Your task to perform on an android device: change the clock display to digital Image 0: 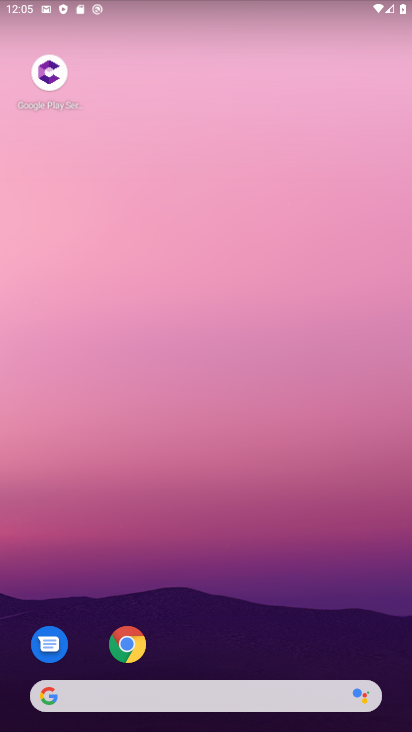
Step 0: drag from (261, 344) to (297, 182)
Your task to perform on an android device: change the clock display to digital Image 1: 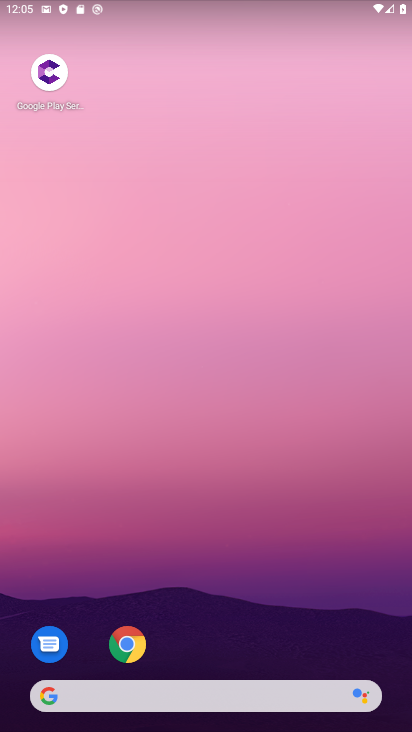
Step 1: drag from (251, 656) to (349, 84)
Your task to perform on an android device: change the clock display to digital Image 2: 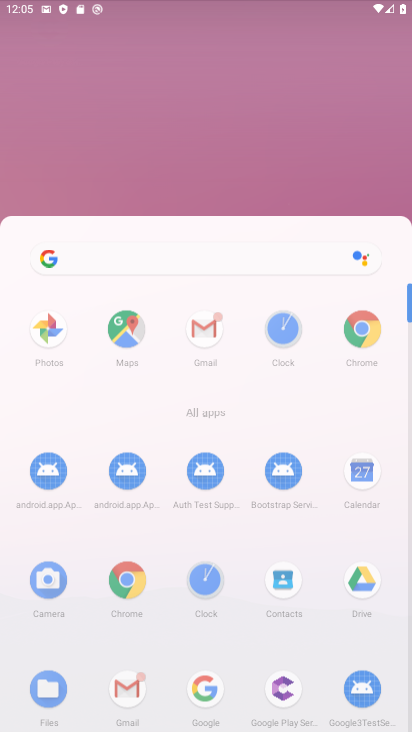
Step 2: drag from (304, 572) to (343, 181)
Your task to perform on an android device: change the clock display to digital Image 3: 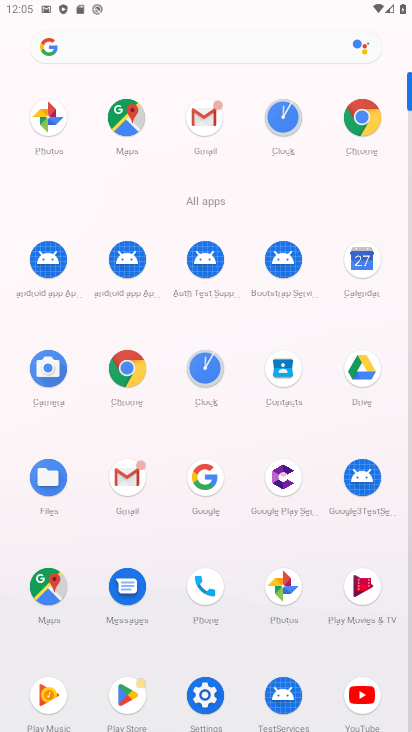
Step 3: click (215, 374)
Your task to perform on an android device: change the clock display to digital Image 4: 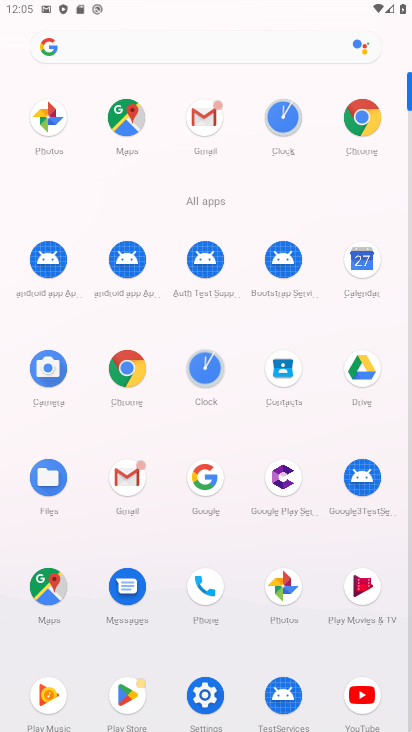
Step 4: click (215, 363)
Your task to perform on an android device: change the clock display to digital Image 5: 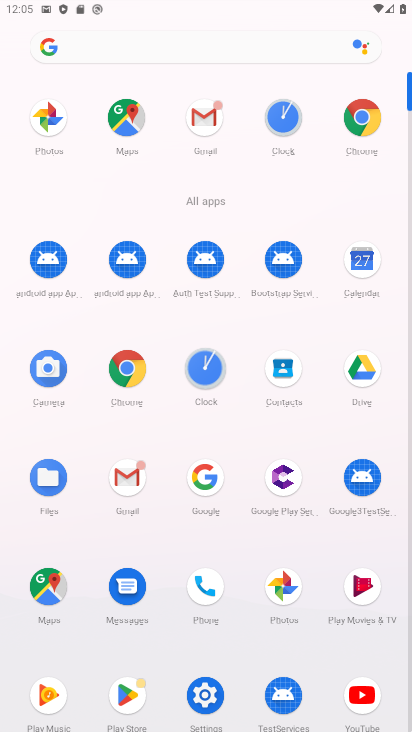
Step 5: click (213, 335)
Your task to perform on an android device: change the clock display to digital Image 6: 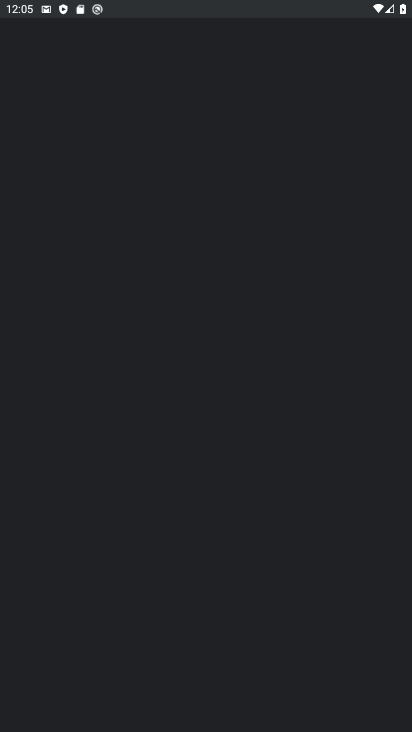
Step 6: click (207, 327)
Your task to perform on an android device: change the clock display to digital Image 7: 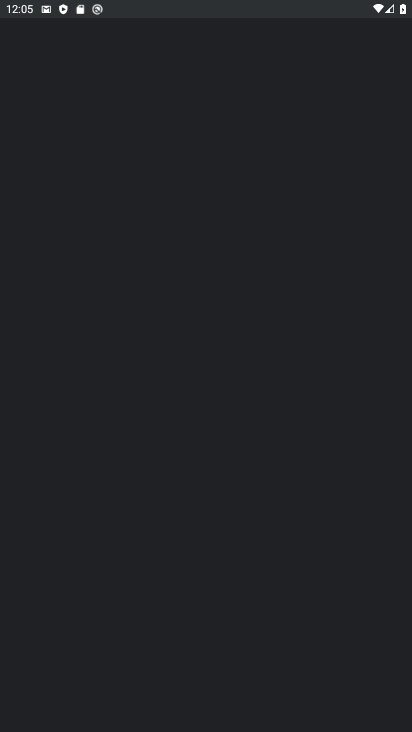
Step 7: click (210, 331)
Your task to perform on an android device: change the clock display to digital Image 8: 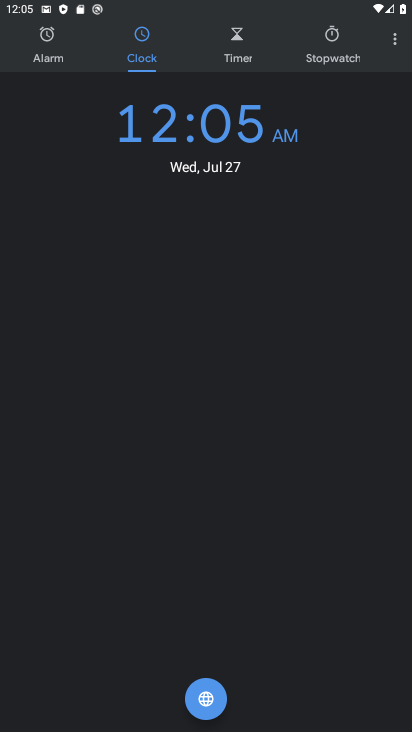
Step 8: drag from (398, 38) to (133, 364)
Your task to perform on an android device: change the clock display to digital Image 9: 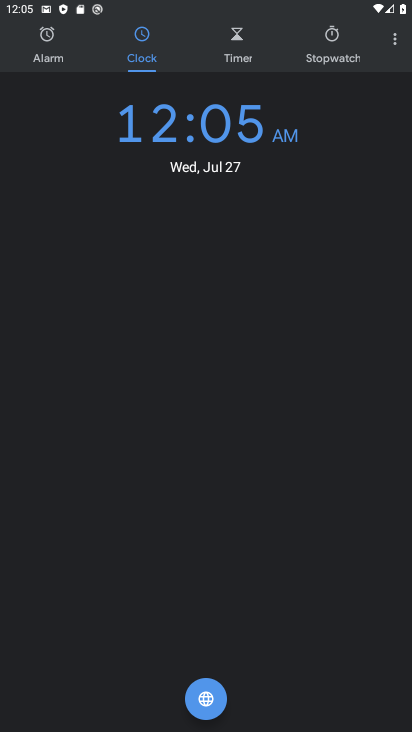
Step 9: click (318, 67)
Your task to perform on an android device: change the clock display to digital Image 10: 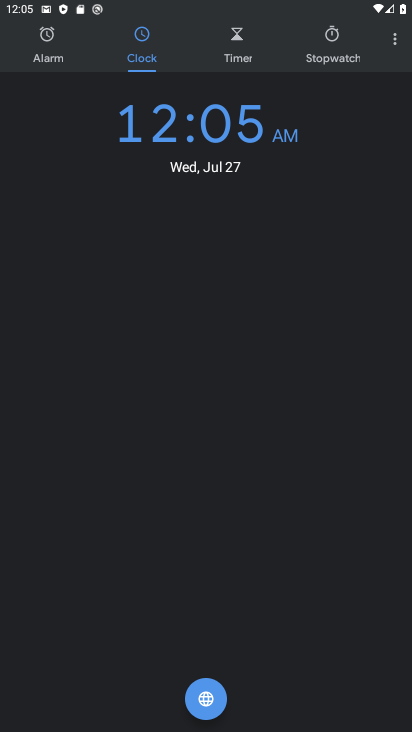
Step 10: drag from (358, 65) to (411, 206)
Your task to perform on an android device: change the clock display to digital Image 11: 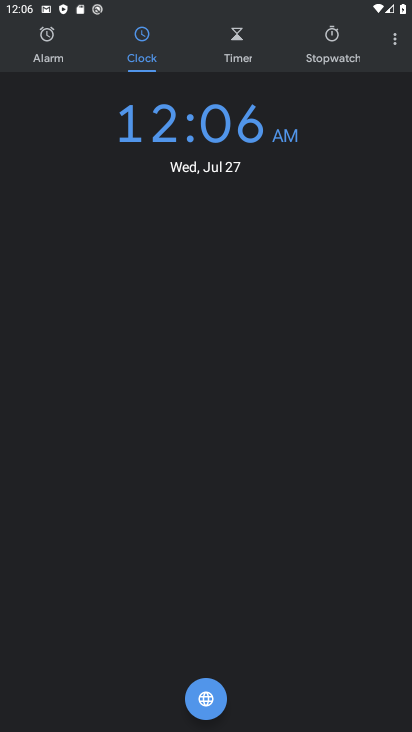
Step 11: click (399, 36)
Your task to perform on an android device: change the clock display to digital Image 12: 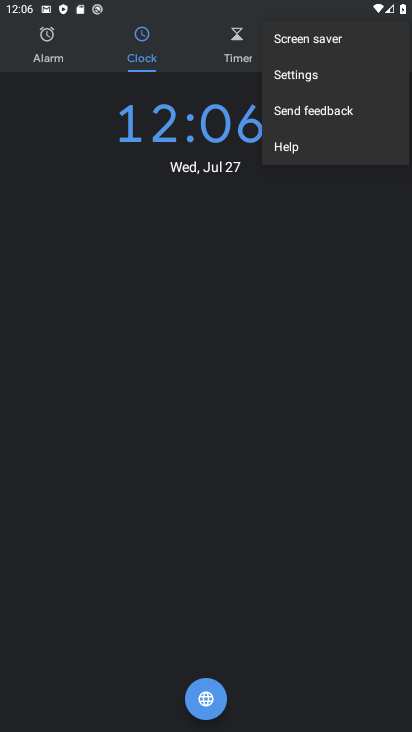
Step 12: click (407, 26)
Your task to perform on an android device: change the clock display to digital Image 13: 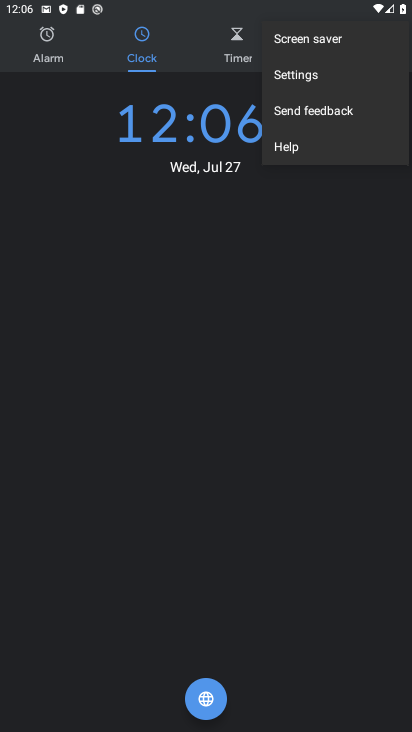
Step 13: click (394, 37)
Your task to perform on an android device: change the clock display to digital Image 14: 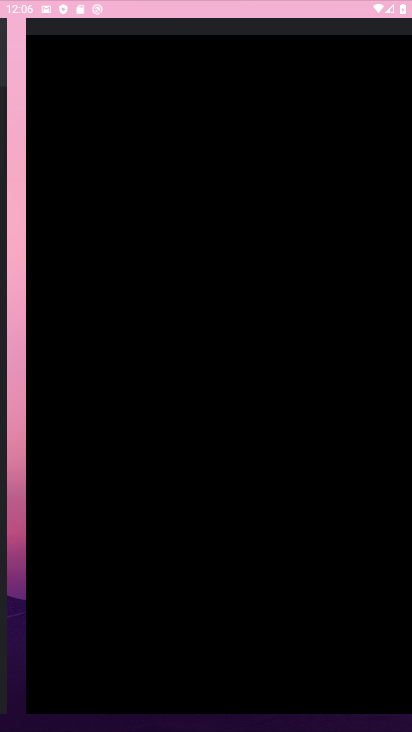
Step 14: click (315, 67)
Your task to perform on an android device: change the clock display to digital Image 15: 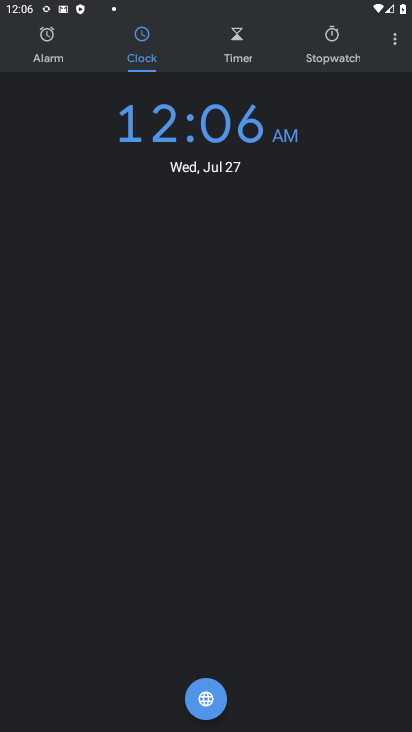
Step 15: click (310, 82)
Your task to perform on an android device: change the clock display to digital Image 16: 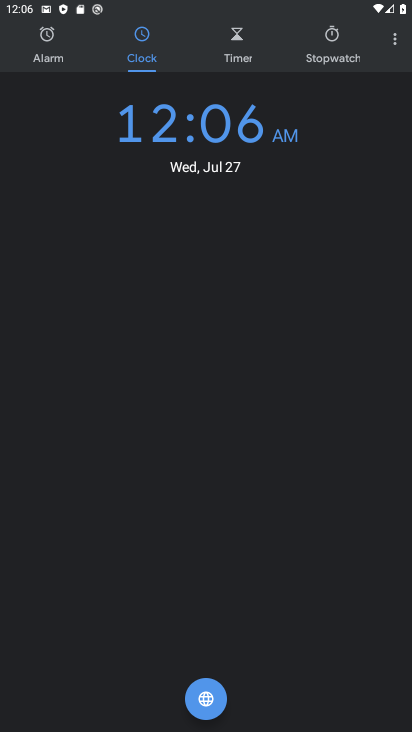
Step 16: click (299, 93)
Your task to perform on an android device: change the clock display to digital Image 17: 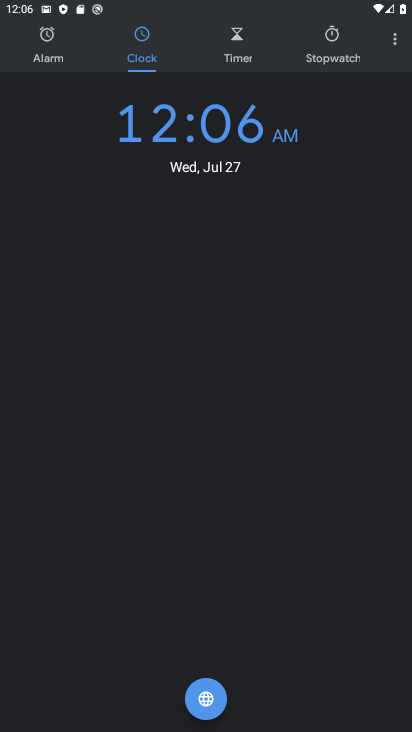
Step 17: click (298, 74)
Your task to perform on an android device: change the clock display to digital Image 18: 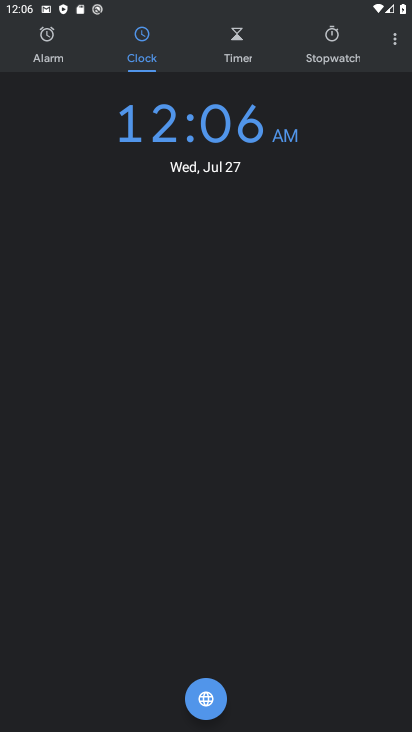
Step 18: click (390, 41)
Your task to perform on an android device: change the clock display to digital Image 19: 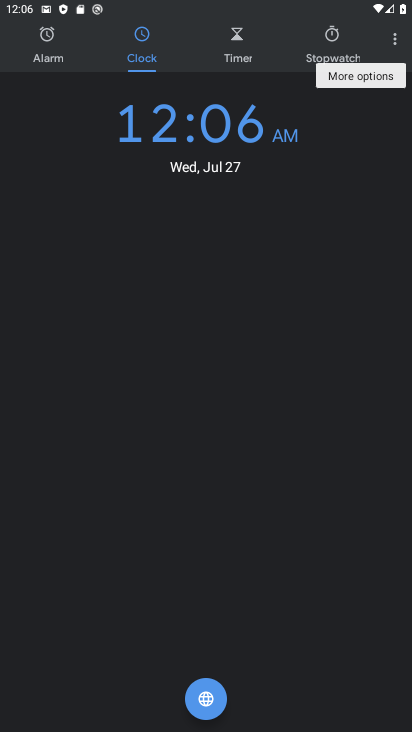
Step 19: click (396, 33)
Your task to perform on an android device: change the clock display to digital Image 20: 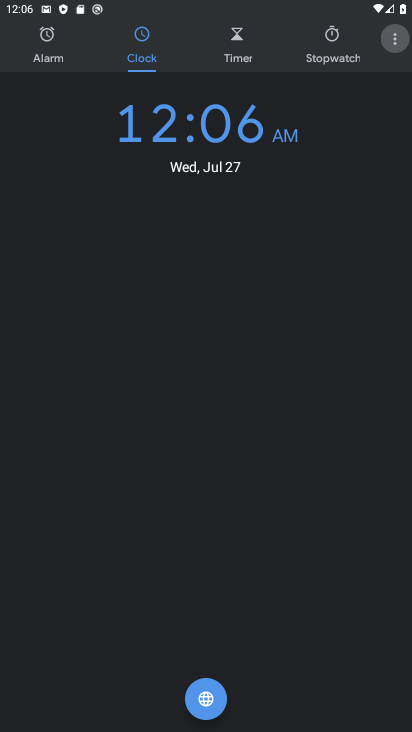
Step 20: click (395, 49)
Your task to perform on an android device: change the clock display to digital Image 21: 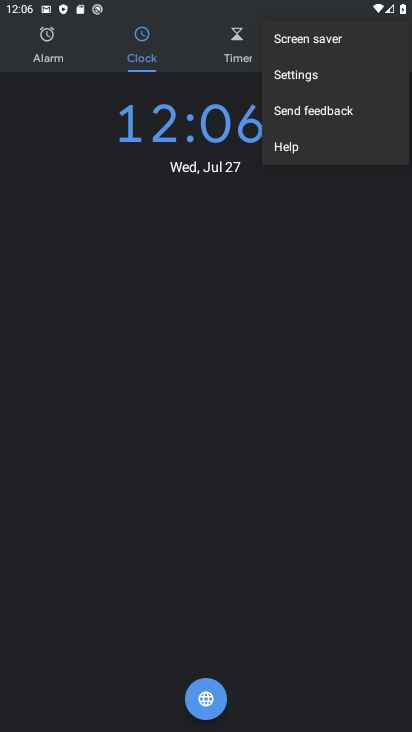
Step 21: click (315, 68)
Your task to perform on an android device: change the clock display to digital Image 22: 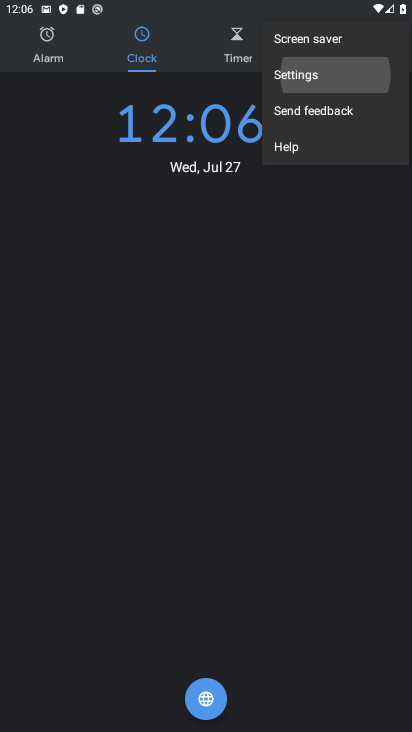
Step 22: click (311, 71)
Your task to perform on an android device: change the clock display to digital Image 23: 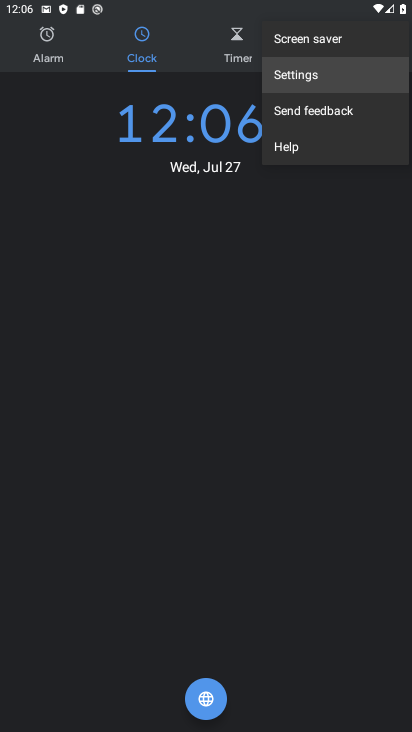
Step 23: click (320, 74)
Your task to perform on an android device: change the clock display to digital Image 24: 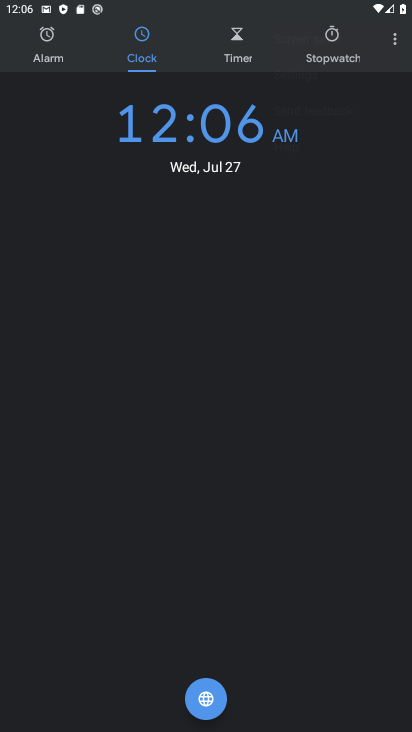
Step 24: click (319, 75)
Your task to perform on an android device: change the clock display to digital Image 25: 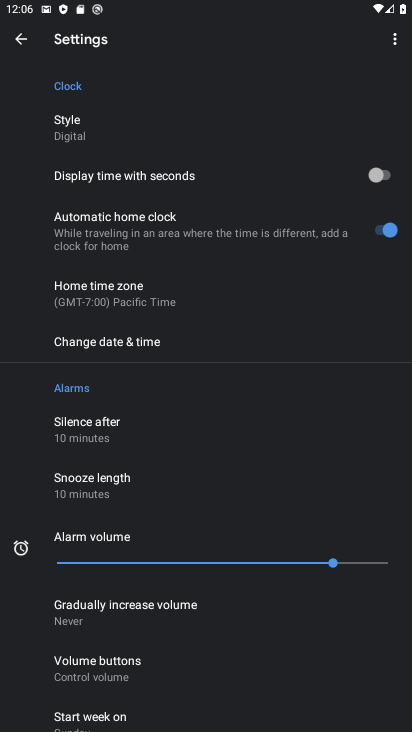
Step 25: task complete